Your task to perform on an android device: Go to ESPN.com Image 0: 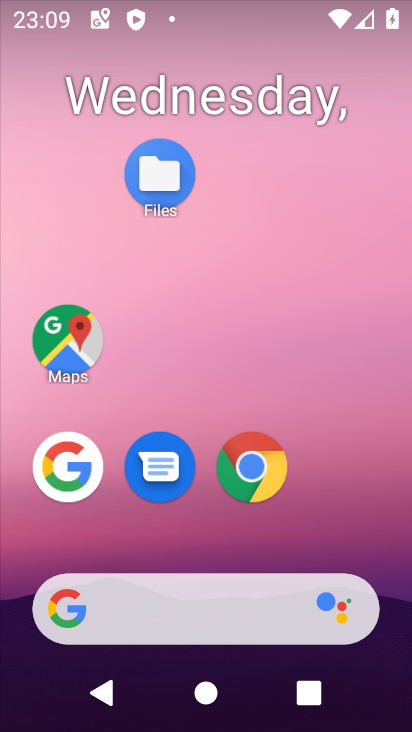
Step 0: click (249, 489)
Your task to perform on an android device: Go to ESPN.com Image 1: 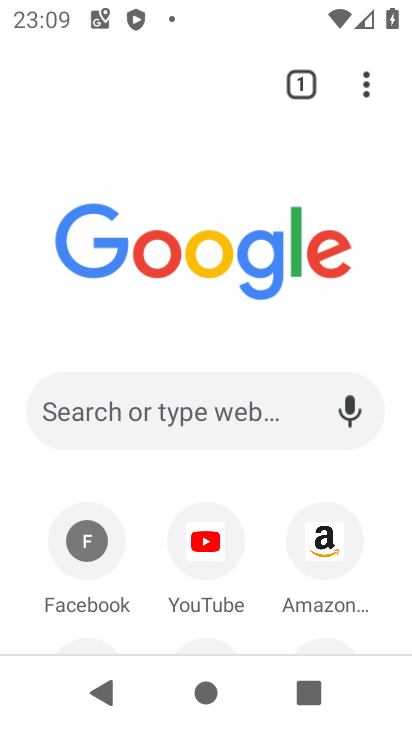
Step 1: drag from (262, 626) to (176, 115)
Your task to perform on an android device: Go to ESPN.com Image 2: 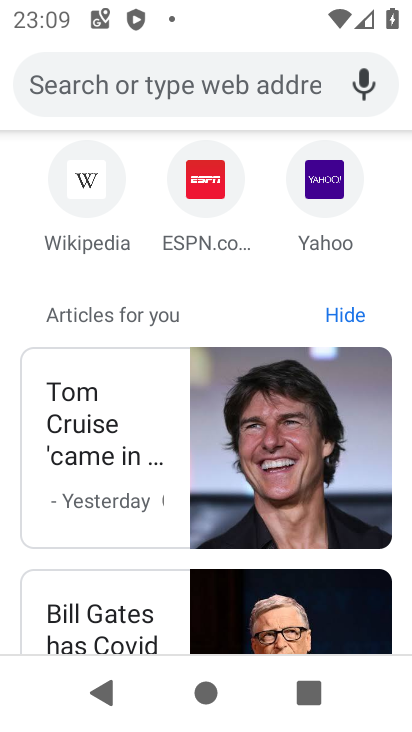
Step 2: click (204, 229)
Your task to perform on an android device: Go to ESPN.com Image 3: 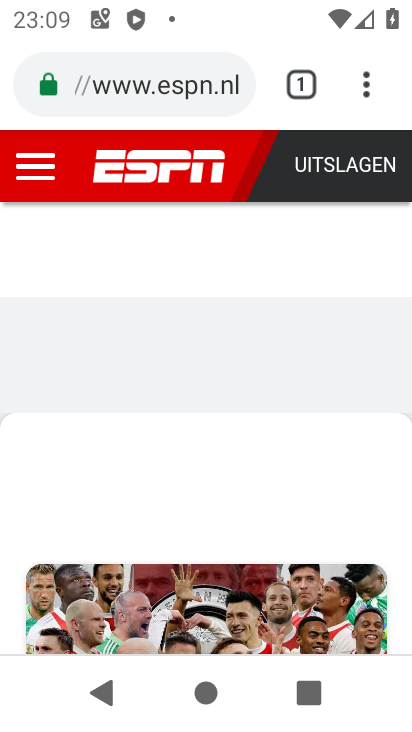
Step 3: task complete